Your task to perform on an android device: Go to accessibility settings Image 0: 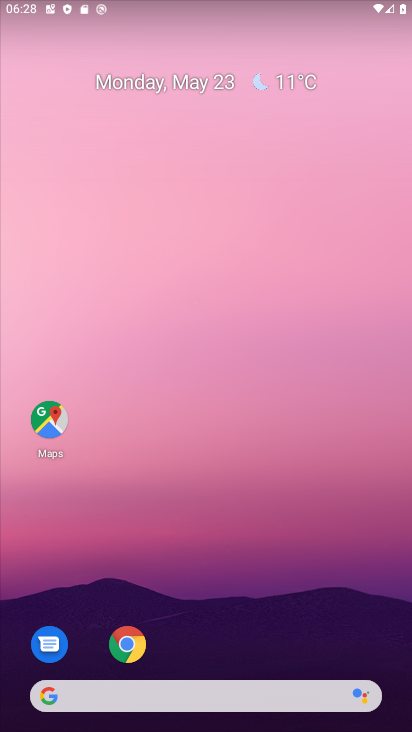
Step 0: drag from (174, 651) to (159, 252)
Your task to perform on an android device: Go to accessibility settings Image 1: 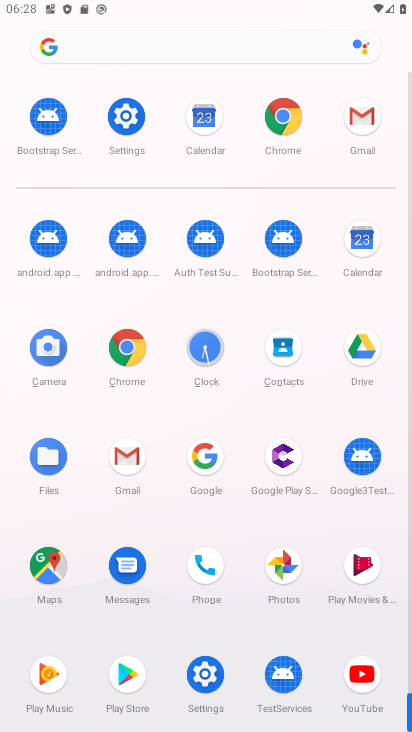
Step 1: click (115, 124)
Your task to perform on an android device: Go to accessibility settings Image 2: 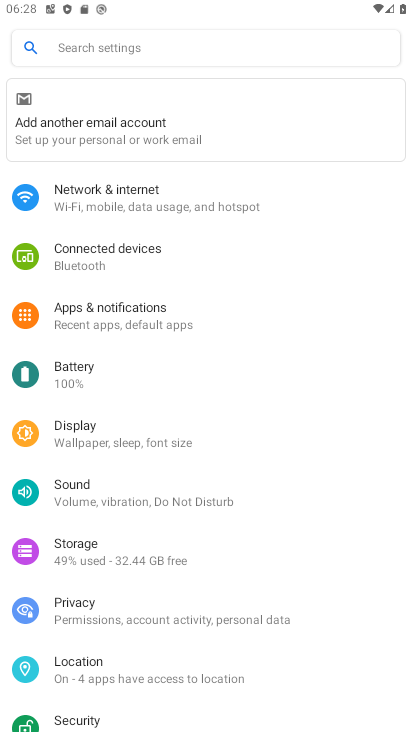
Step 2: drag from (166, 688) to (205, 386)
Your task to perform on an android device: Go to accessibility settings Image 3: 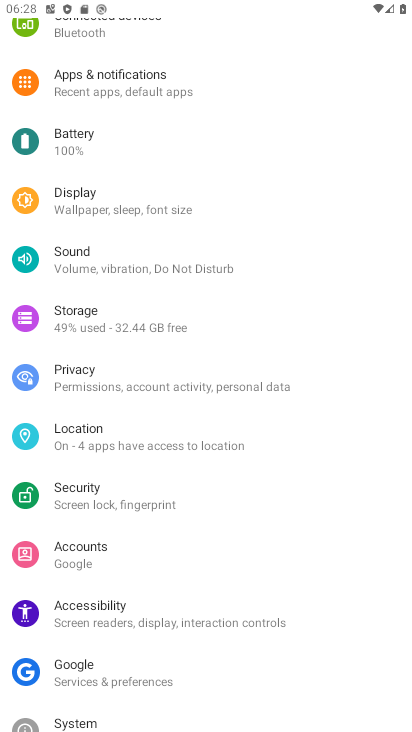
Step 3: click (135, 617)
Your task to perform on an android device: Go to accessibility settings Image 4: 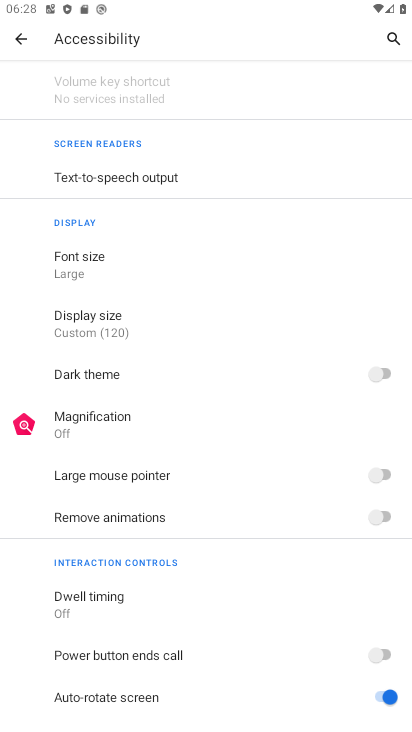
Step 4: task complete